Your task to perform on an android device: Show me popular videos on Youtube Image 0: 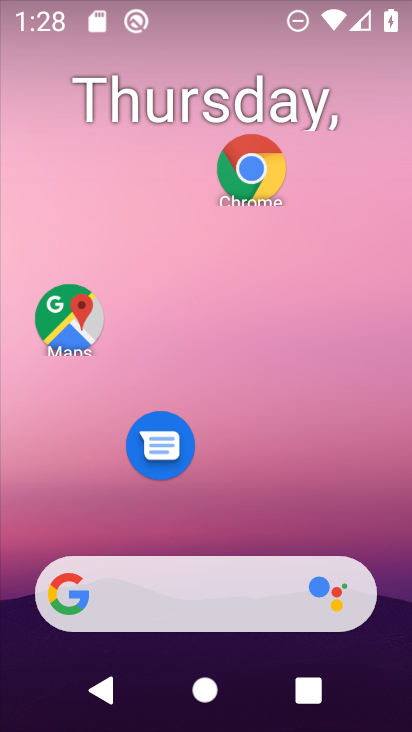
Step 0: drag from (248, 624) to (330, 224)
Your task to perform on an android device: Show me popular videos on Youtube Image 1: 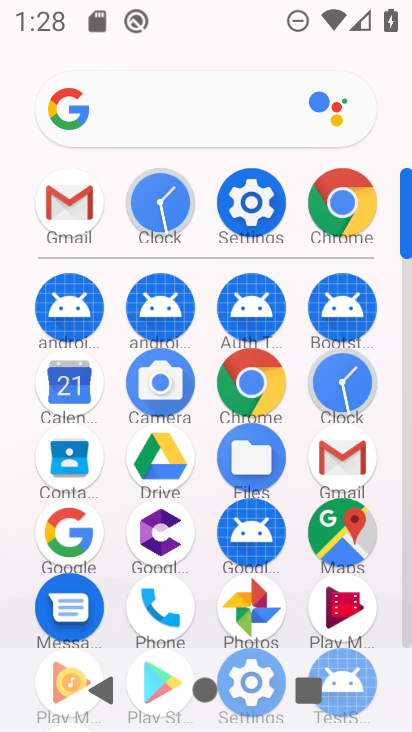
Step 1: drag from (116, 498) to (175, 339)
Your task to perform on an android device: Show me popular videos on Youtube Image 2: 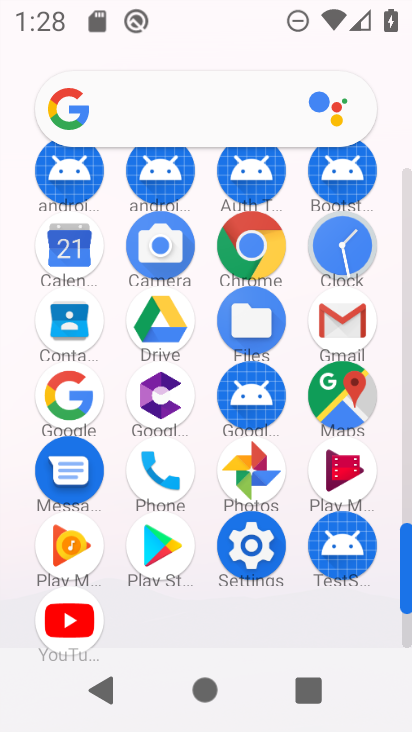
Step 2: click (69, 608)
Your task to perform on an android device: Show me popular videos on Youtube Image 3: 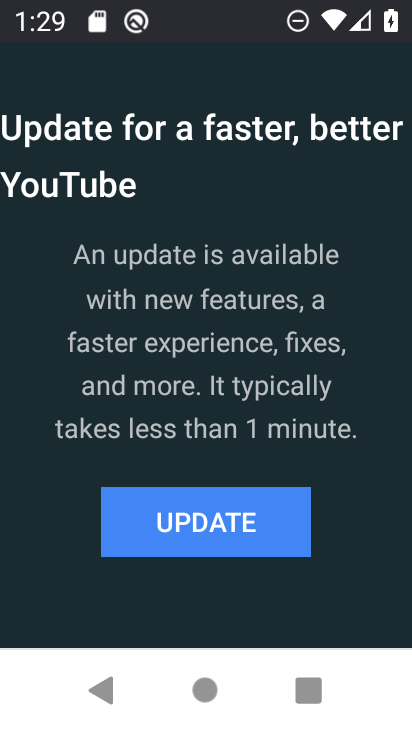
Step 3: click (228, 491)
Your task to perform on an android device: Show me popular videos on Youtube Image 4: 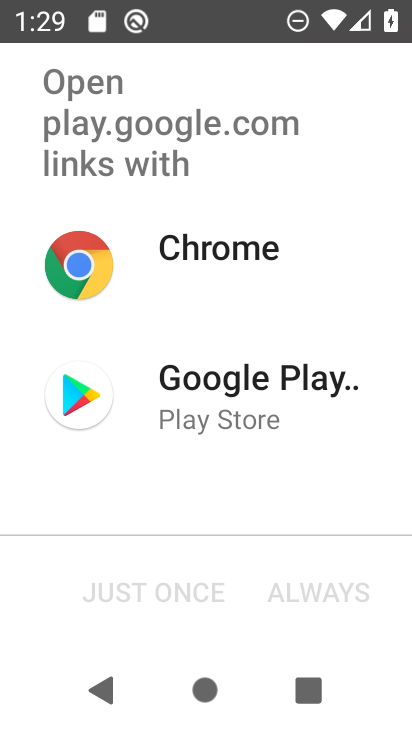
Step 4: click (224, 430)
Your task to perform on an android device: Show me popular videos on Youtube Image 5: 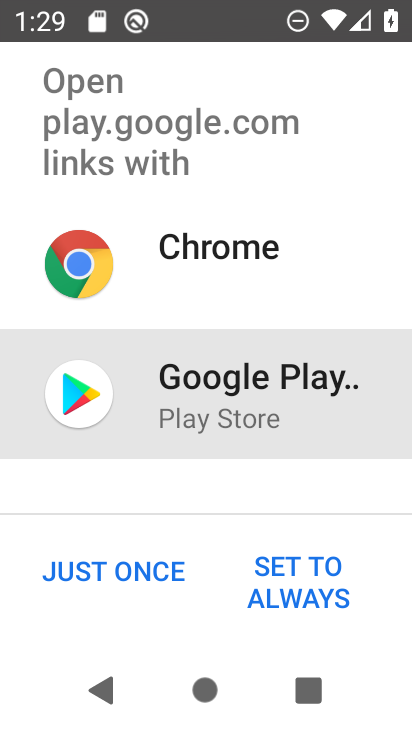
Step 5: click (118, 581)
Your task to perform on an android device: Show me popular videos on Youtube Image 6: 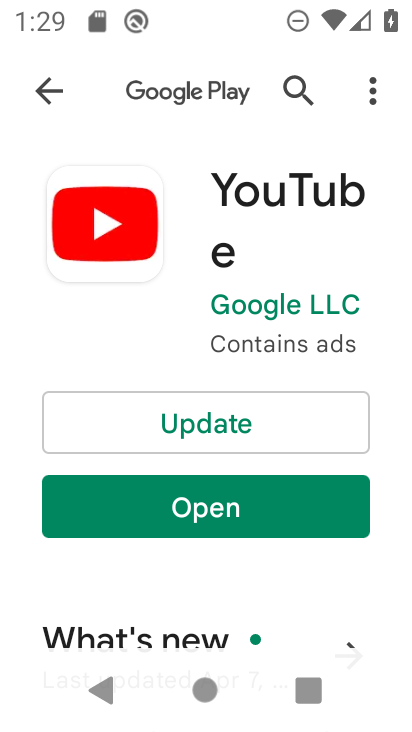
Step 6: click (205, 419)
Your task to perform on an android device: Show me popular videos on Youtube Image 7: 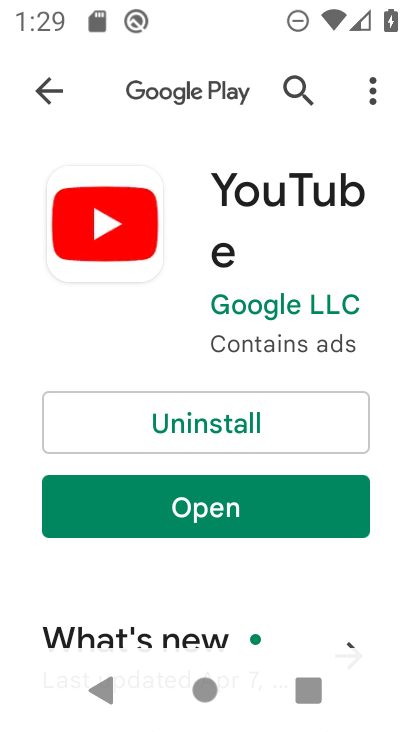
Step 7: click (175, 508)
Your task to perform on an android device: Show me popular videos on Youtube Image 8: 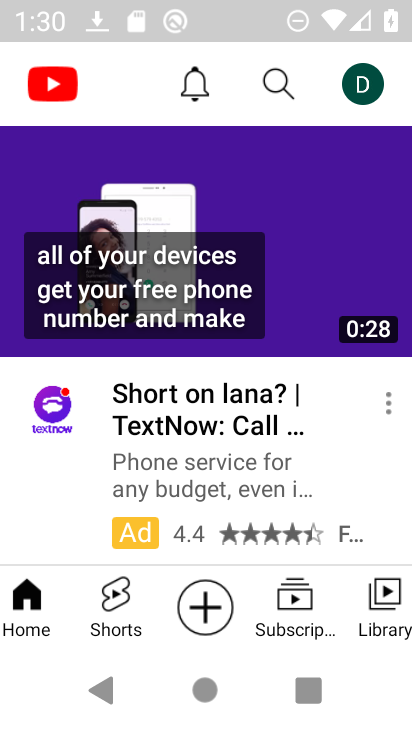
Step 8: click (273, 80)
Your task to perform on an android device: Show me popular videos on Youtube Image 9: 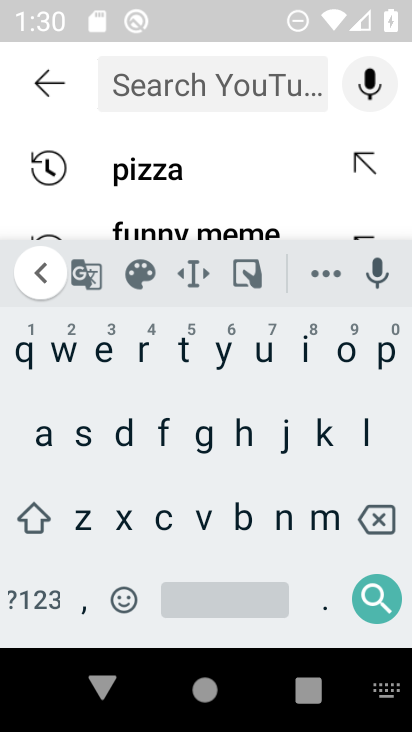
Step 9: click (384, 350)
Your task to perform on an android device: Show me popular videos on Youtube Image 10: 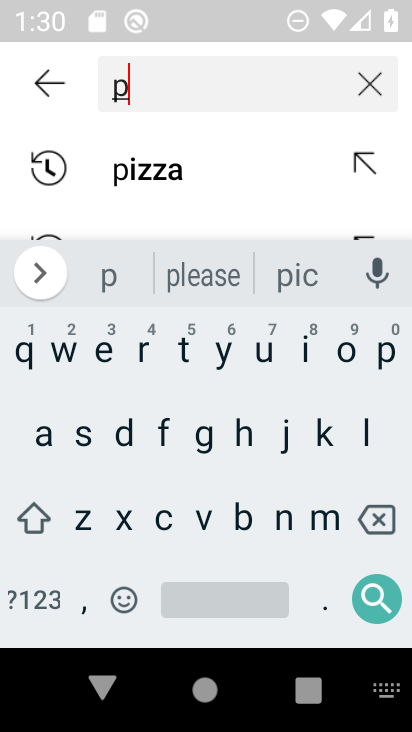
Step 10: click (346, 355)
Your task to perform on an android device: Show me popular videos on Youtube Image 11: 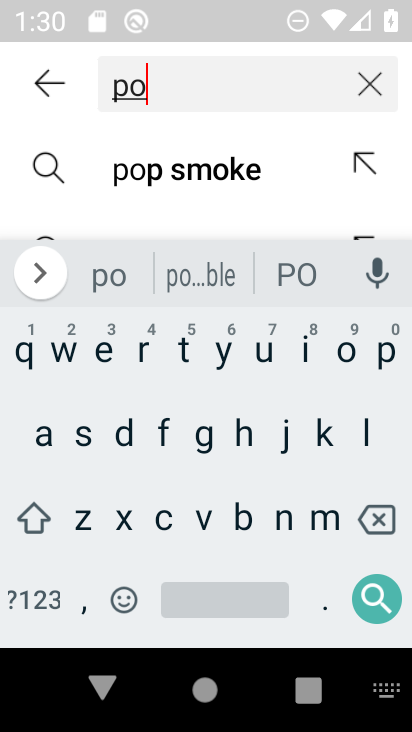
Step 11: click (389, 354)
Your task to perform on an android device: Show me popular videos on Youtube Image 12: 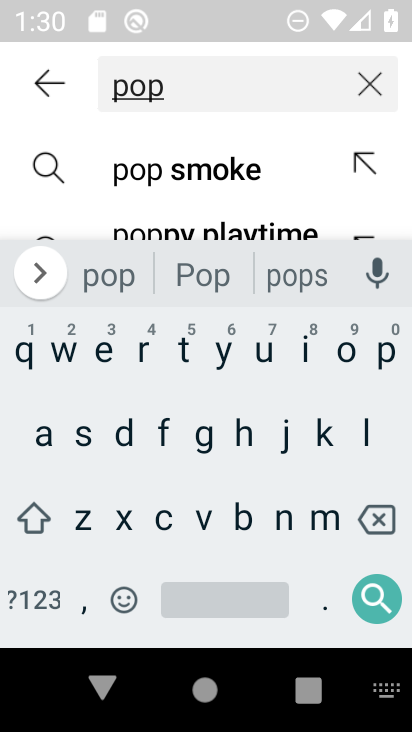
Step 12: click (264, 361)
Your task to perform on an android device: Show me popular videos on Youtube Image 13: 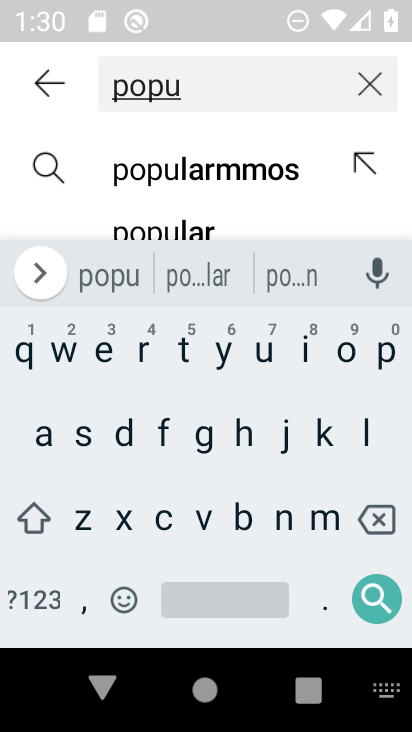
Step 13: click (202, 285)
Your task to perform on an android device: Show me popular videos on Youtube Image 14: 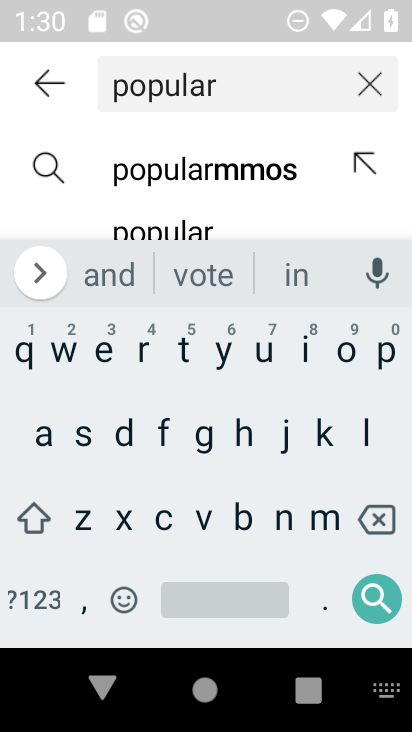
Step 14: click (202, 524)
Your task to perform on an android device: Show me popular videos on Youtube Image 15: 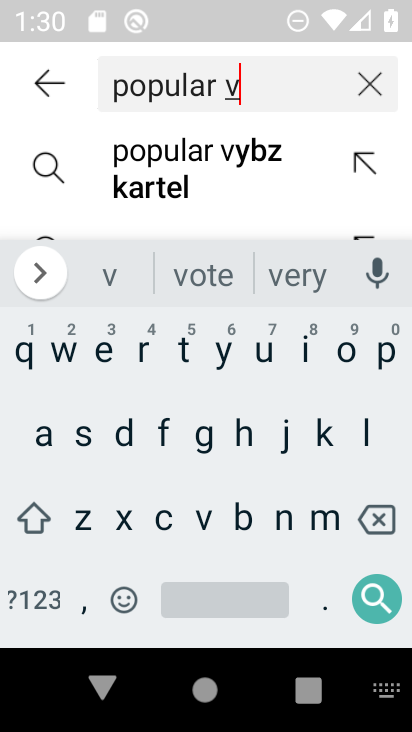
Step 15: click (303, 360)
Your task to perform on an android device: Show me popular videos on Youtube Image 16: 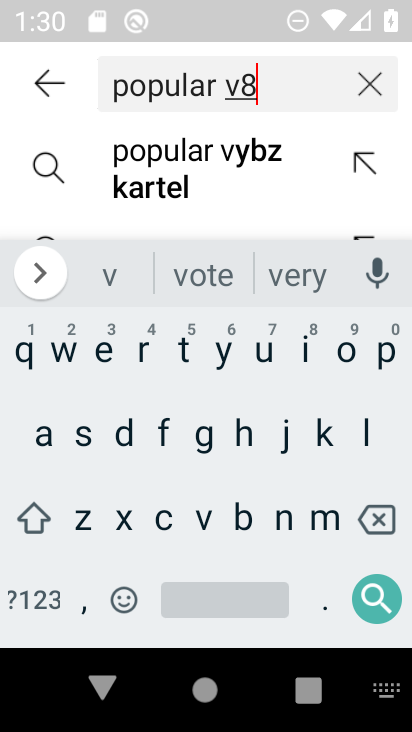
Step 16: click (306, 357)
Your task to perform on an android device: Show me popular videos on Youtube Image 17: 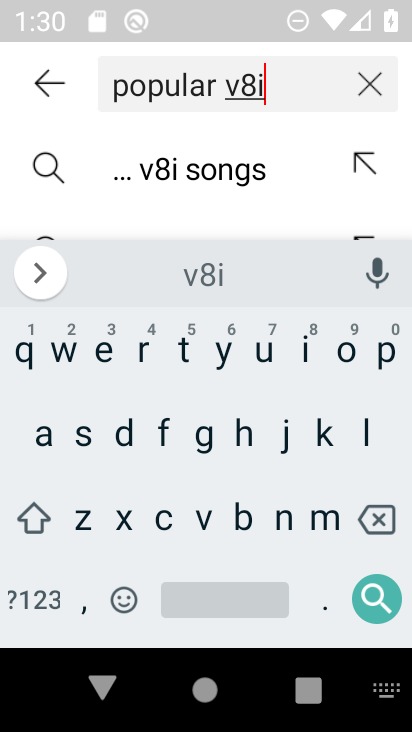
Step 17: click (376, 511)
Your task to perform on an android device: Show me popular videos on Youtube Image 18: 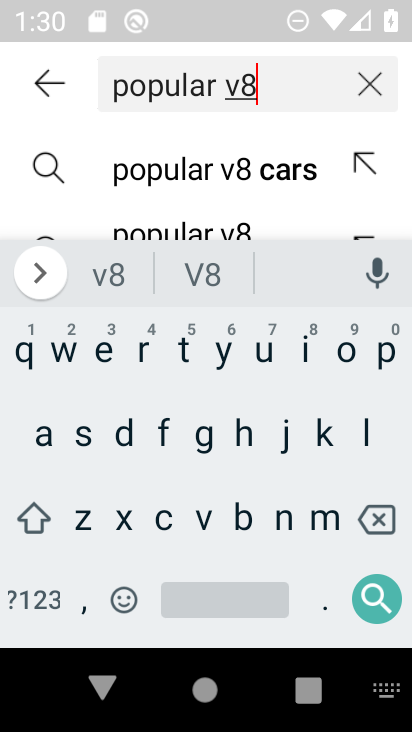
Step 18: click (376, 511)
Your task to perform on an android device: Show me popular videos on Youtube Image 19: 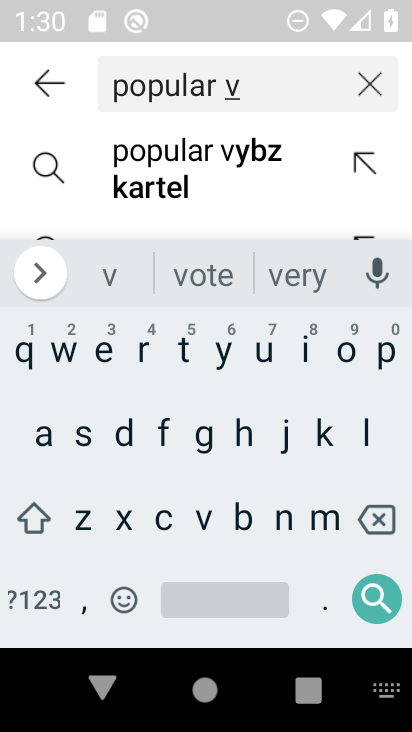
Step 19: click (302, 456)
Your task to perform on an android device: Show me popular videos on Youtube Image 20: 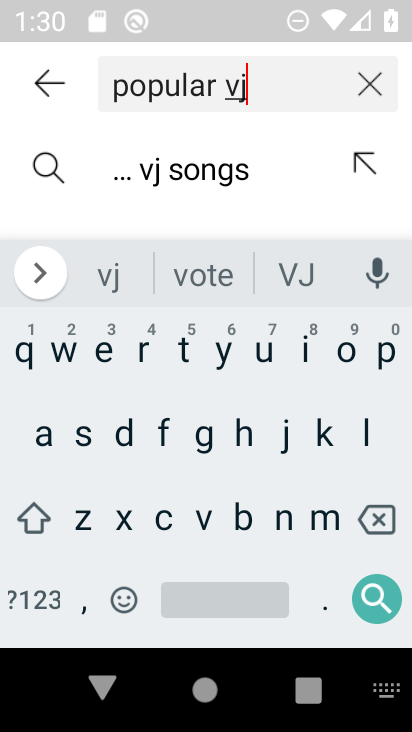
Step 20: click (378, 509)
Your task to perform on an android device: Show me popular videos on Youtube Image 21: 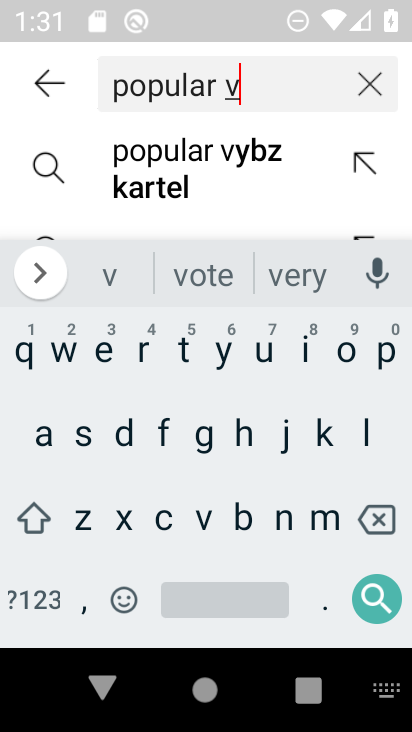
Step 21: click (303, 360)
Your task to perform on an android device: Show me popular videos on Youtube Image 22: 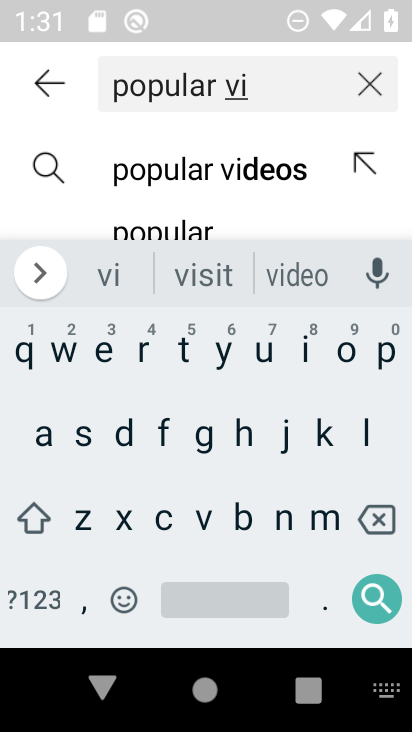
Step 22: click (176, 162)
Your task to perform on an android device: Show me popular videos on Youtube Image 23: 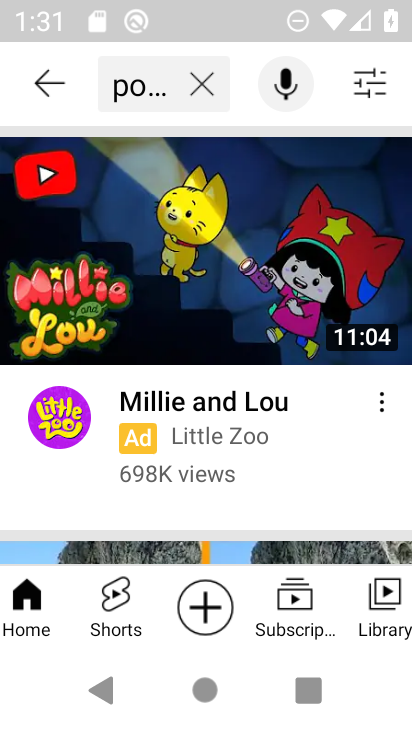
Step 23: task complete